Your task to perform on an android device: Show me popular videos on Youtube Image 0: 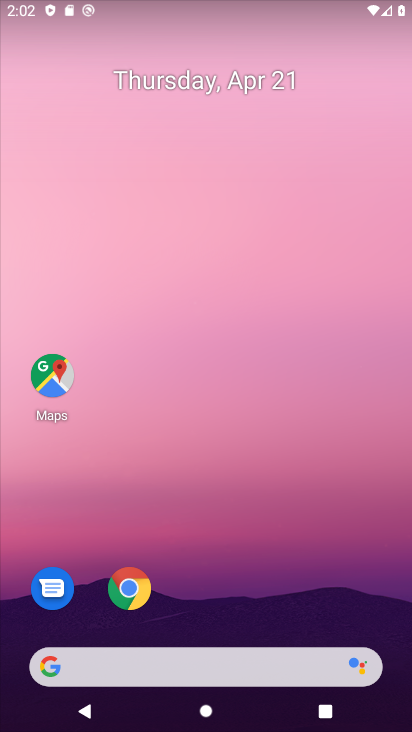
Step 0: drag from (189, 607) to (289, 274)
Your task to perform on an android device: Show me popular videos on Youtube Image 1: 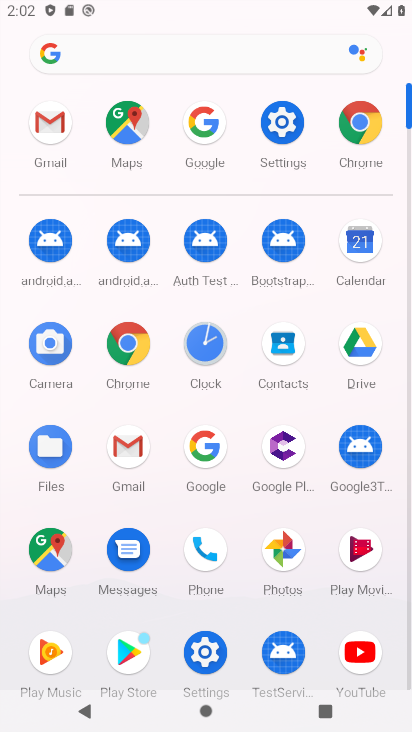
Step 1: click (360, 636)
Your task to perform on an android device: Show me popular videos on Youtube Image 2: 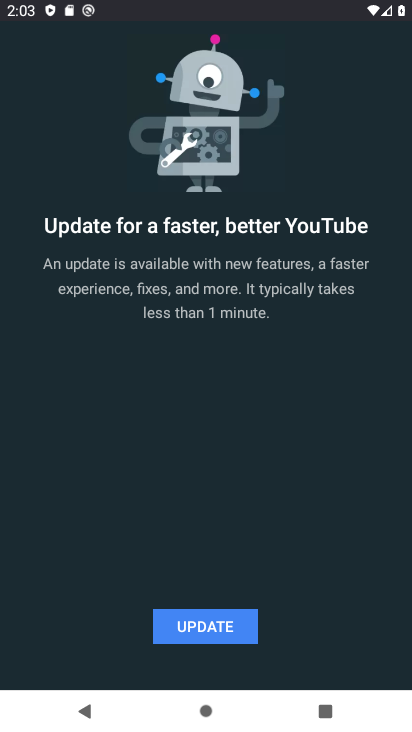
Step 2: task complete